Your task to perform on an android device: turn on showing notifications on the lock screen Image 0: 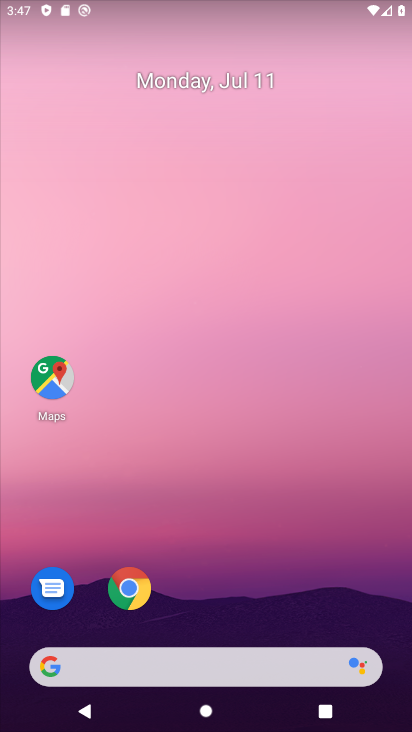
Step 0: drag from (310, 606) to (316, 132)
Your task to perform on an android device: turn on showing notifications on the lock screen Image 1: 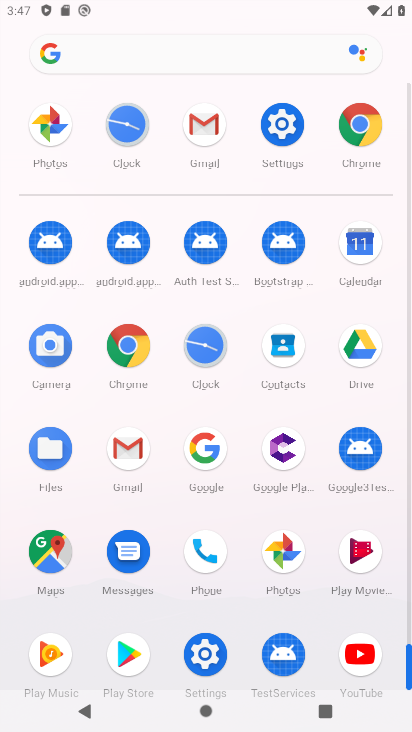
Step 1: click (285, 132)
Your task to perform on an android device: turn on showing notifications on the lock screen Image 2: 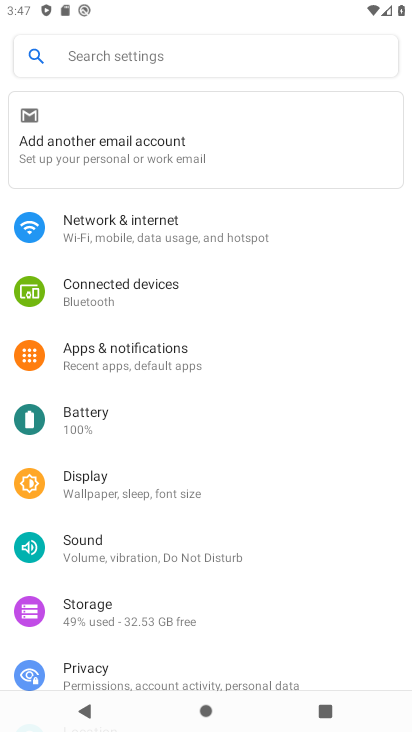
Step 2: drag from (334, 466) to (341, 404)
Your task to perform on an android device: turn on showing notifications on the lock screen Image 3: 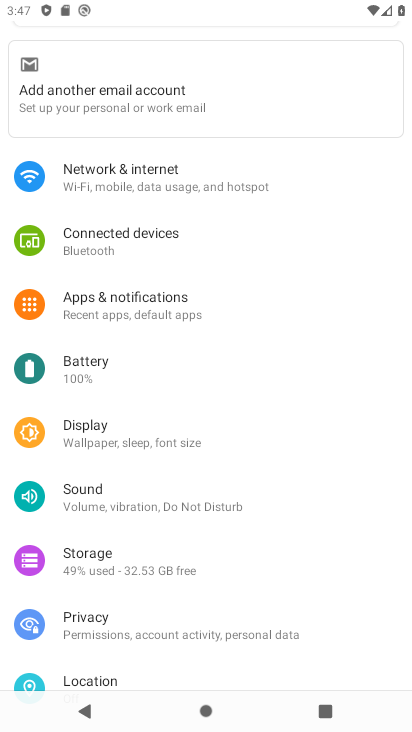
Step 3: drag from (356, 484) to (354, 373)
Your task to perform on an android device: turn on showing notifications on the lock screen Image 4: 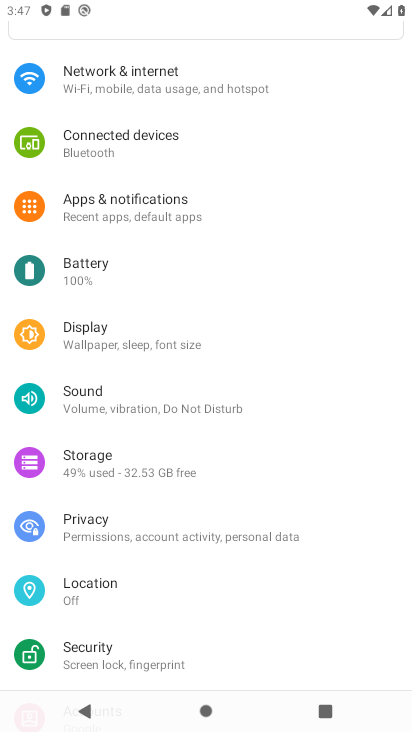
Step 4: drag from (351, 504) to (323, 336)
Your task to perform on an android device: turn on showing notifications on the lock screen Image 5: 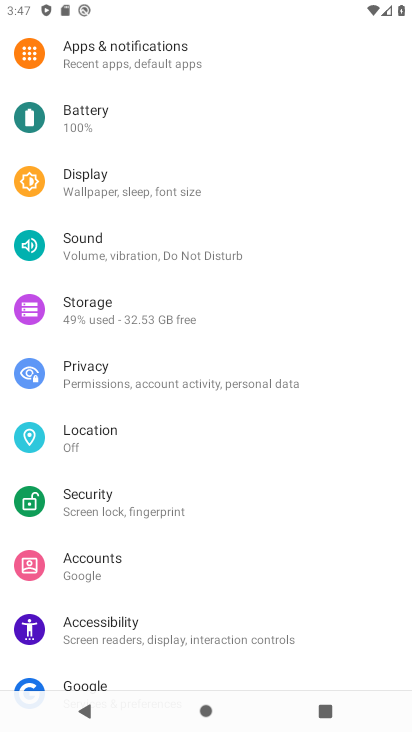
Step 5: drag from (348, 487) to (355, 332)
Your task to perform on an android device: turn on showing notifications on the lock screen Image 6: 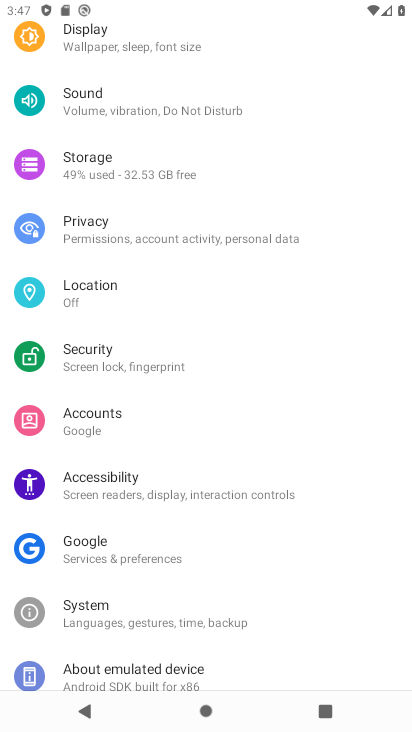
Step 6: drag from (333, 312) to (331, 374)
Your task to perform on an android device: turn on showing notifications on the lock screen Image 7: 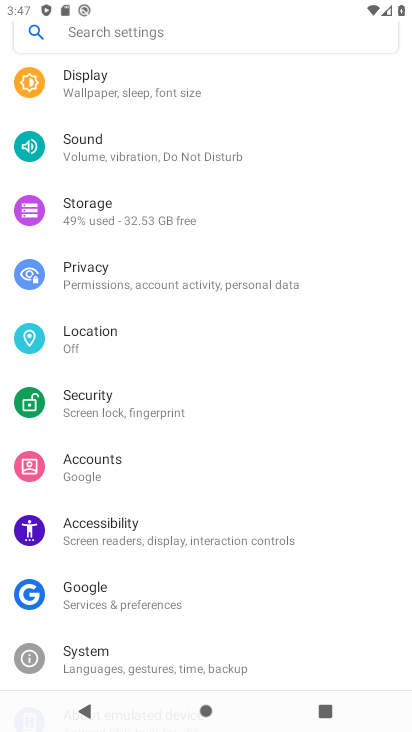
Step 7: drag from (343, 246) to (347, 383)
Your task to perform on an android device: turn on showing notifications on the lock screen Image 8: 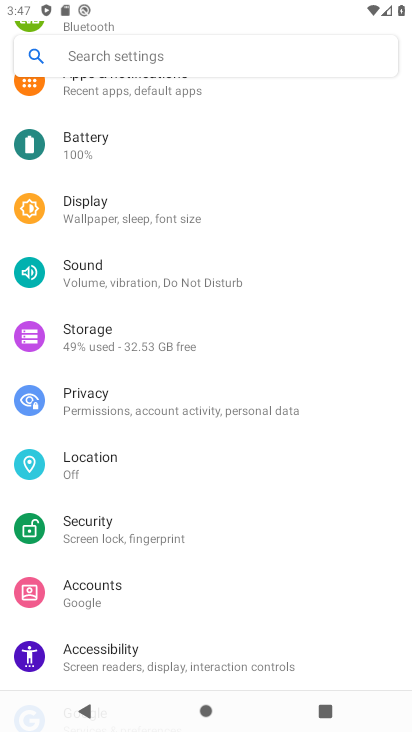
Step 8: drag from (350, 207) to (319, 392)
Your task to perform on an android device: turn on showing notifications on the lock screen Image 9: 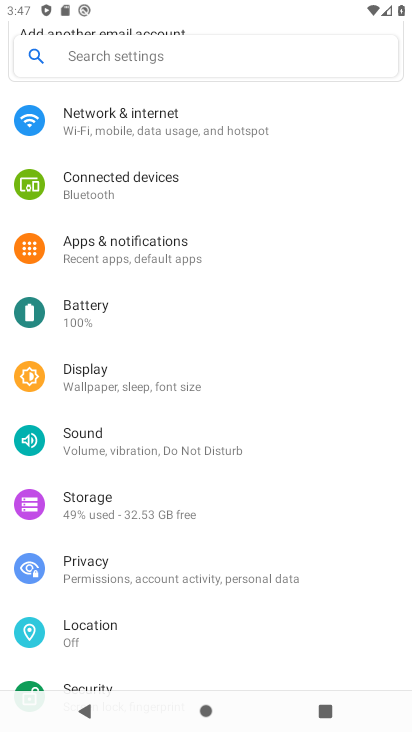
Step 9: drag from (287, 195) to (291, 367)
Your task to perform on an android device: turn on showing notifications on the lock screen Image 10: 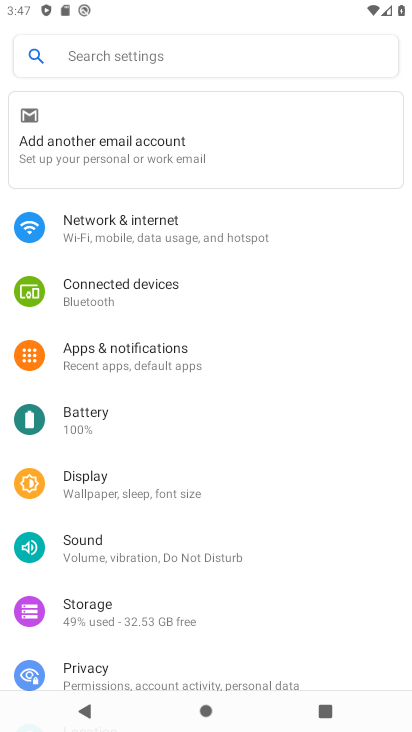
Step 10: click (184, 363)
Your task to perform on an android device: turn on showing notifications on the lock screen Image 11: 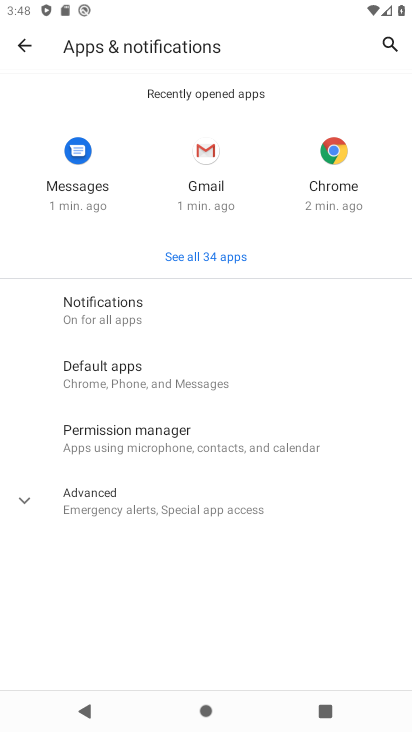
Step 11: click (150, 317)
Your task to perform on an android device: turn on showing notifications on the lock screen Image 12: 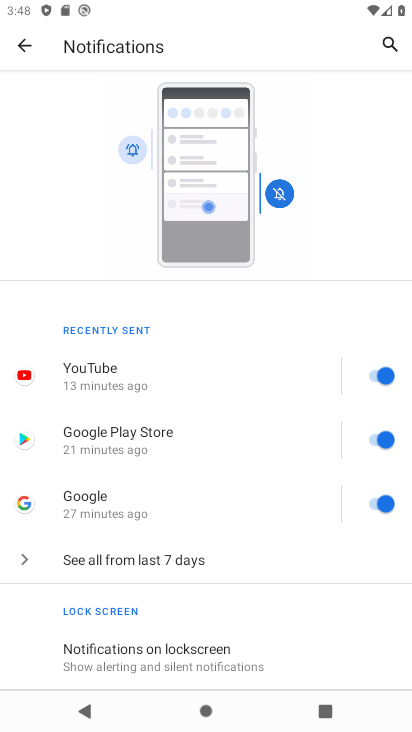
Step 12: drag from (259, 490) to (244, 364)
Your task to perform on an android device: turn on showing notifications on the lock screen Image 13: 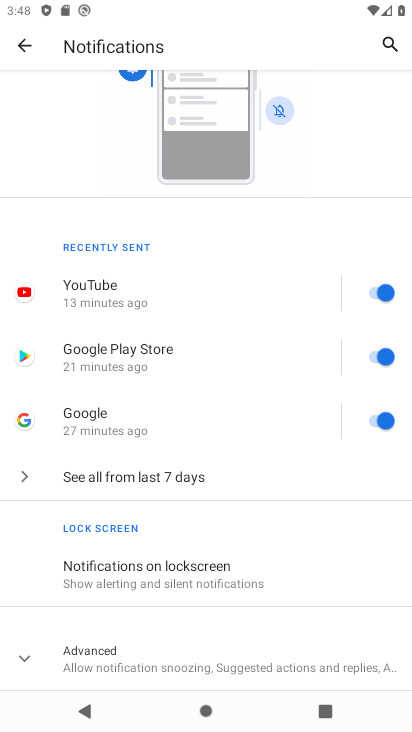
Step 13: drag from (275, 529) to (262, 342)
Your task to perform on an android device: turn on showing notifications on the lock screen Image 14: 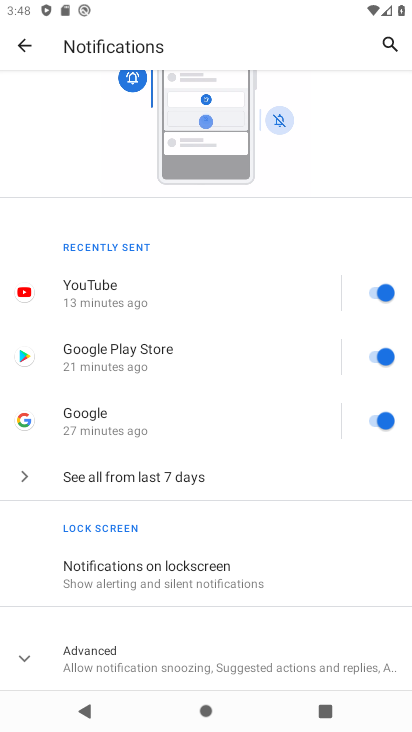
Step 14: click (217, 587)
Your task to perform on an android device: turn on showing notifications on the lock screen Image 15: 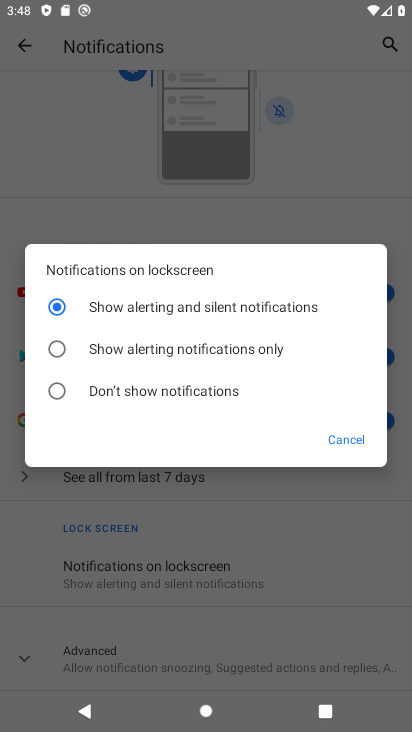
Step 15: task complete